Your task to perform on an android device: check the backup settings in the google photos Image 0: 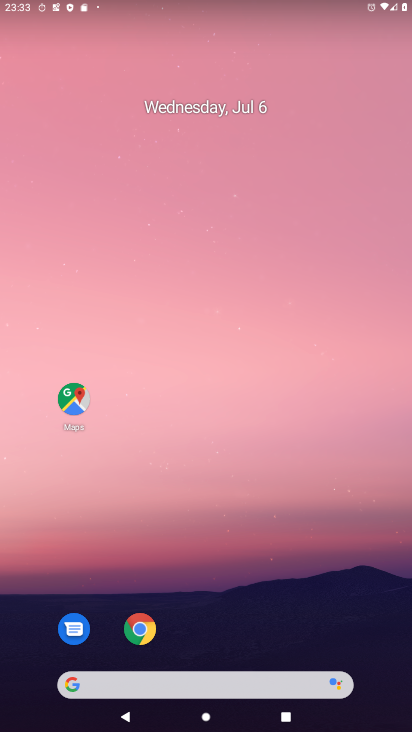
Step 0: drag from (222, 653) to (304, 90)
Your task to perform on an android device: check the backup settings in the google photos Image 1: 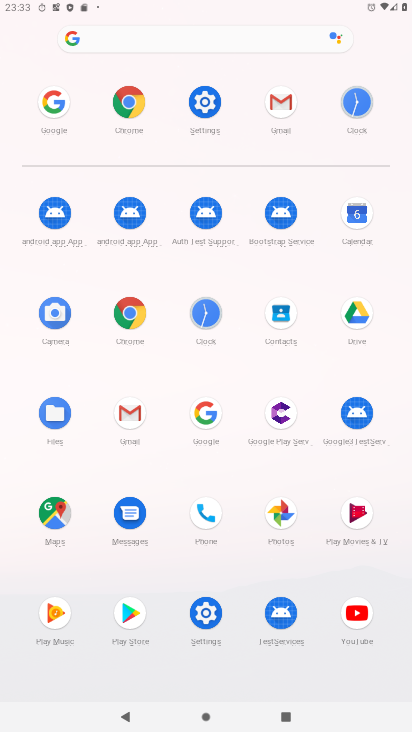
Step 1: click (290, 509)
Your task to perform on an android device: check the backup settings in the google photos Image 2: 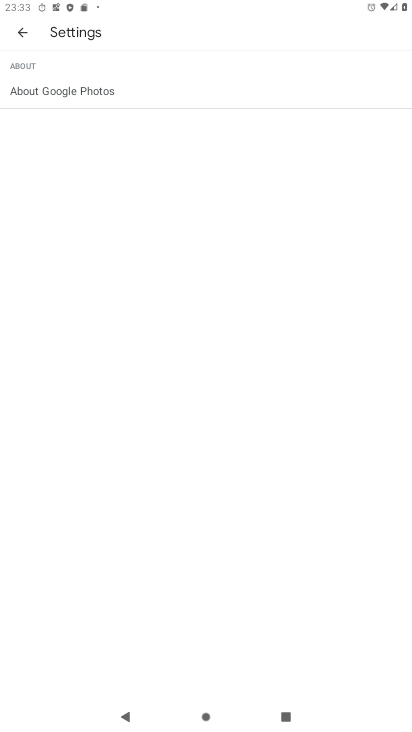
Step 2: press back button
Your task to perform on an android device: check the backup settings in the google photos Image 3: 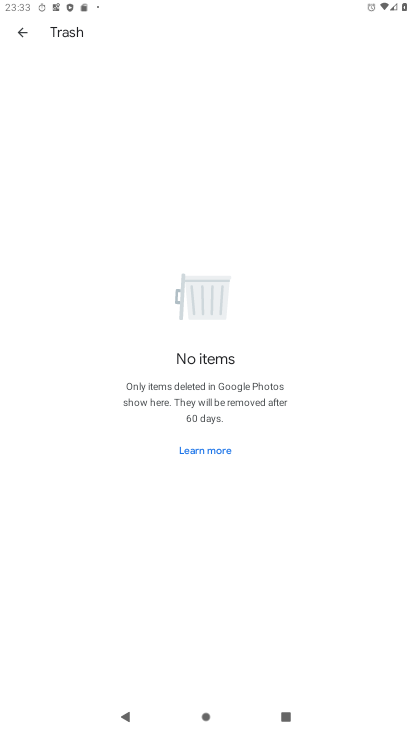
Step 3: press back button
Your task to perform on an android device: check the backup settings in the google photos Image 4: 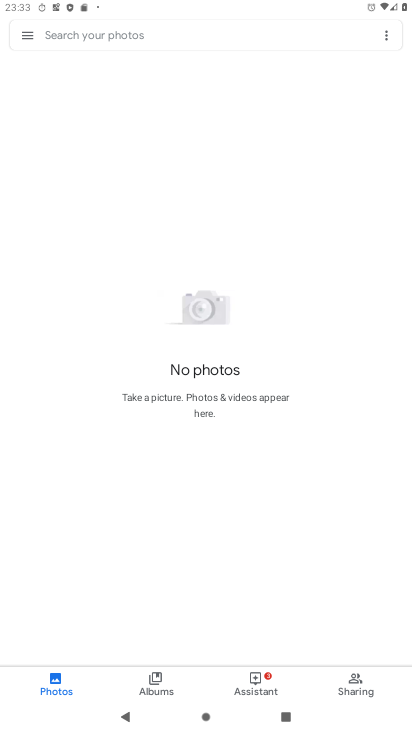
Step 4: click (28, 34)
Your task to perform on an android device: check the backup settings in the google photos Image 5: 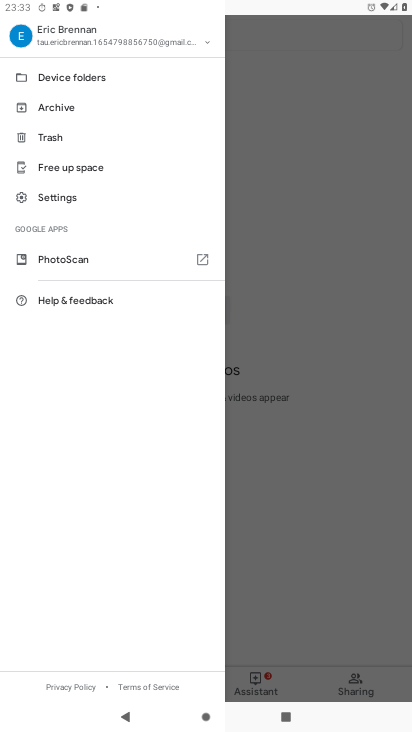
Step 5: click (56, 196)
Your task to perform on an android device: check the backup settings in the google photos Image 6: 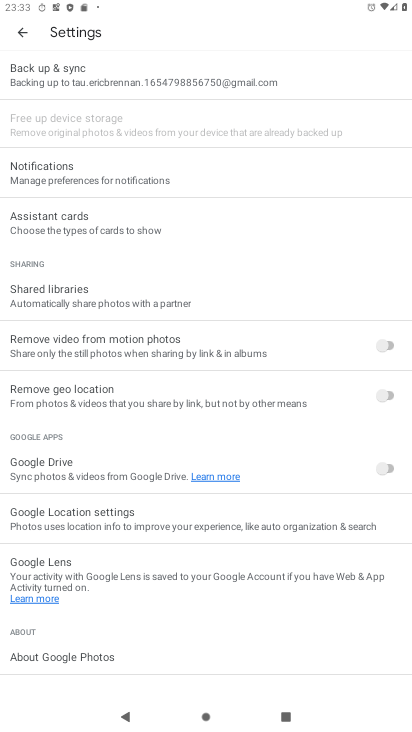
Step 6: click (91, 75)
Your task to perform on an android device: check the backup settings in the google photos Image 7: 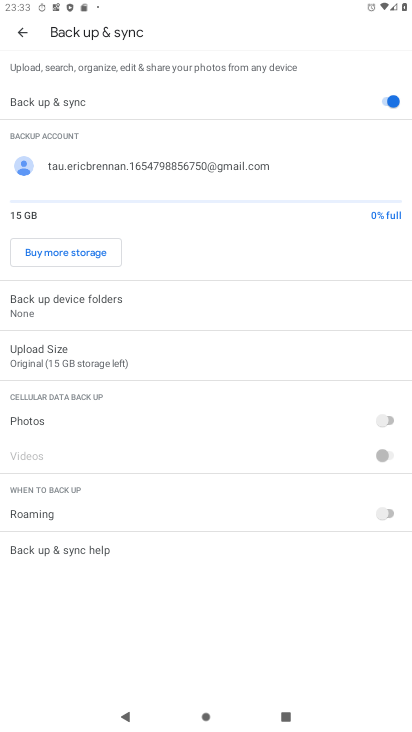
Step 7: task complete